Your task to perform on an android device: turn off location Image 0: 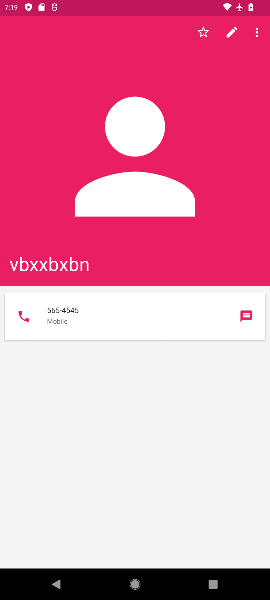
Step 0: press home button
Your task to perform on an android device: turn off location Image 1: 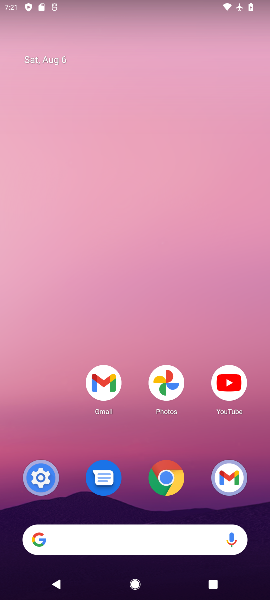
Step 1: drag from (134, 520) to (151, 5)
Your task to perform on an android device: turn off location Image 2: 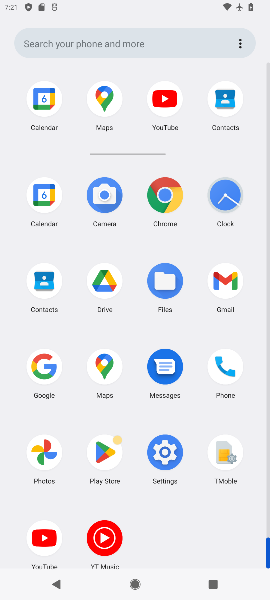
Step 2: click (172, 455)
Your task to perform on an android device: turn off location Image 3: 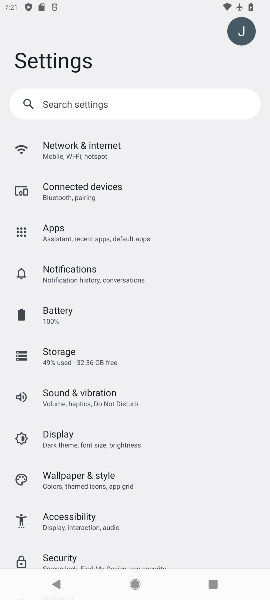
Step 3: drag from (164, 516) to (133, 186)
Your task to perform on an android device: turn off location Image 4: 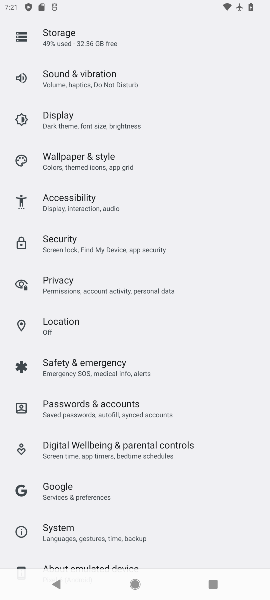
Step 4: click (64, 332)
Your task to perform on an android device: turn off location Image 5: 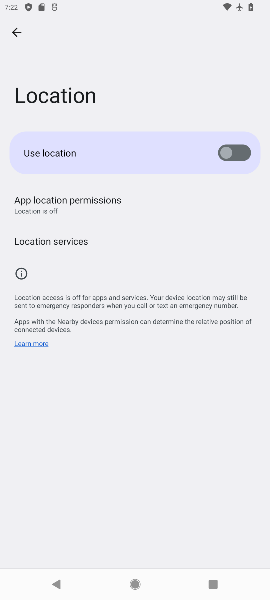
Step 5: task complete